Your task to perform on an android device: Open Chrome and go to settings Image 0: 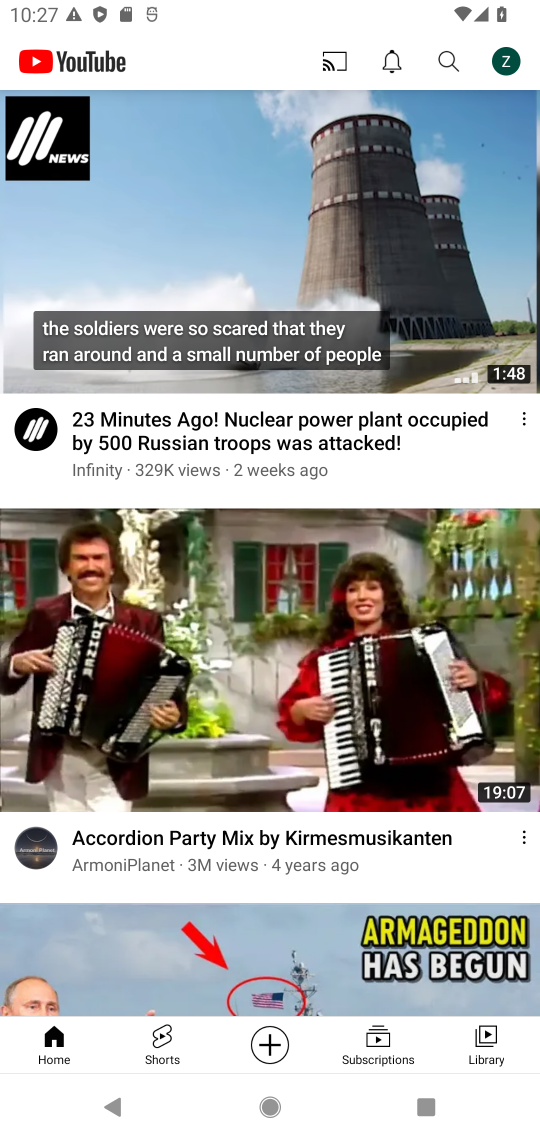
Step 0: press home button
Your task to perform on an android device: Open Chrome and go to settings Image 1: 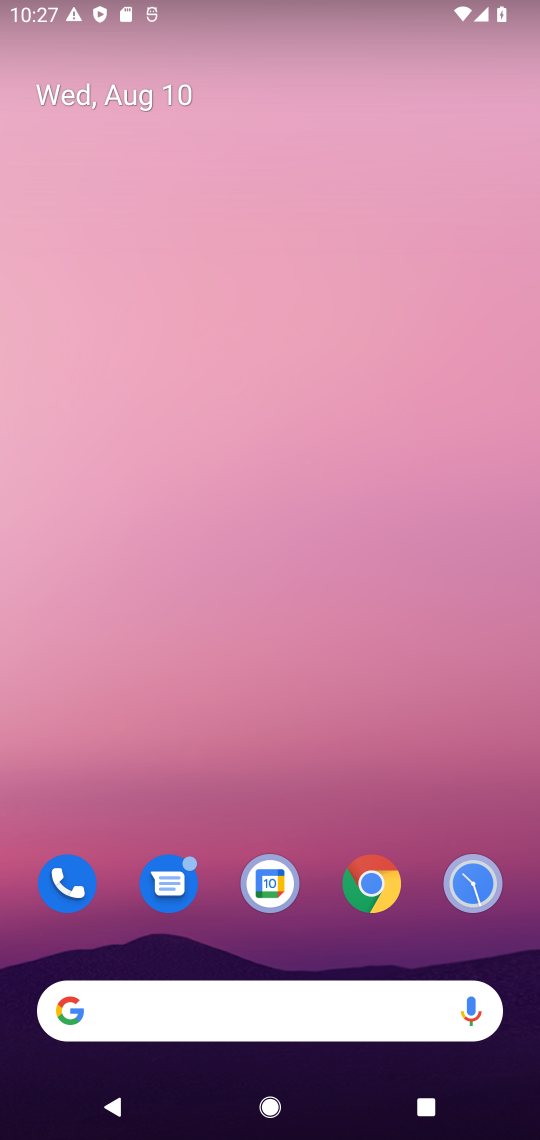
Step 1: click (372, 889)
Your task to perform on an android device: Open Chrome and go to settings Image 2: 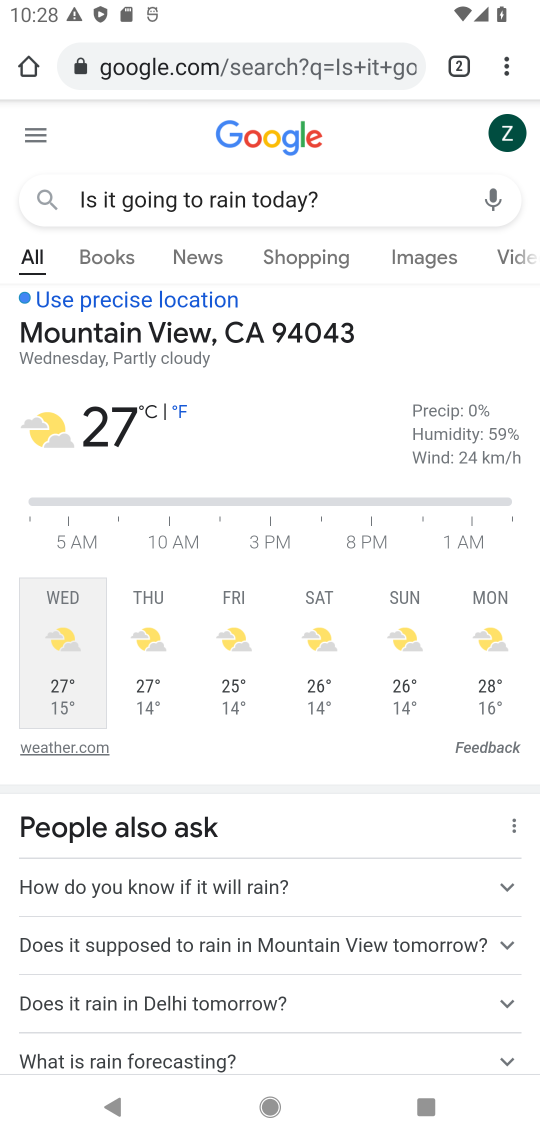
Step 2: task complete